Your task to perform on an android device: turn off airplane mode Image 0: 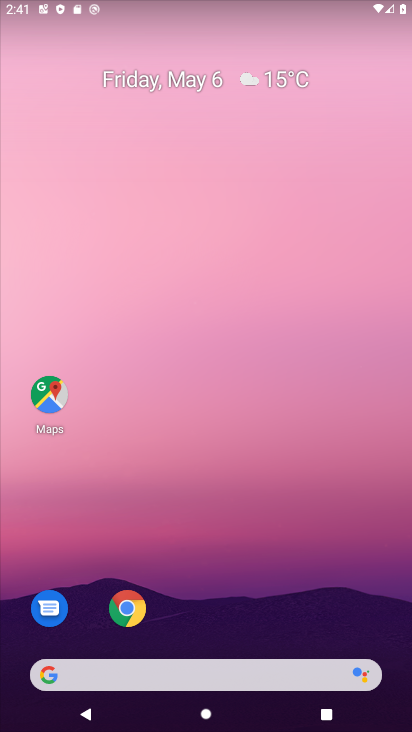
Step 0: drag from (258, 6) to (407, 93)
Your task to perform on an android device: turn off airplane mode Image 1: 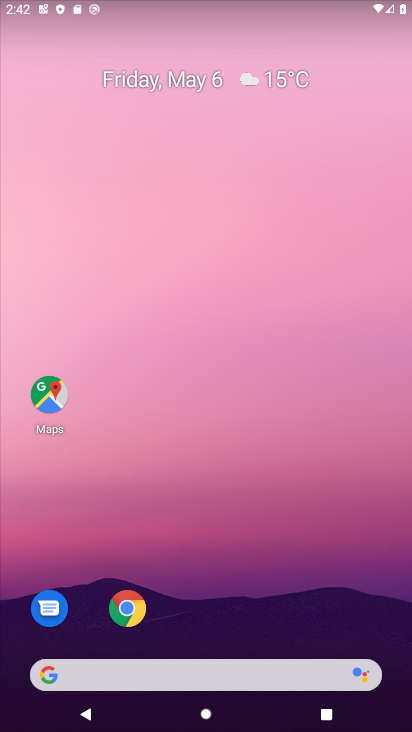
Step 1: task complete